Your task to perform on an android device: Open Google Chrome Image 0: 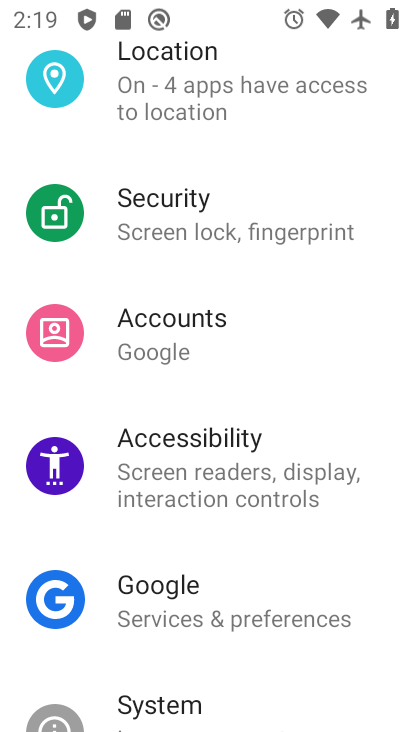
Step 0: press home button
Your task to perform on an android device: Open Google Chrome Image 1: 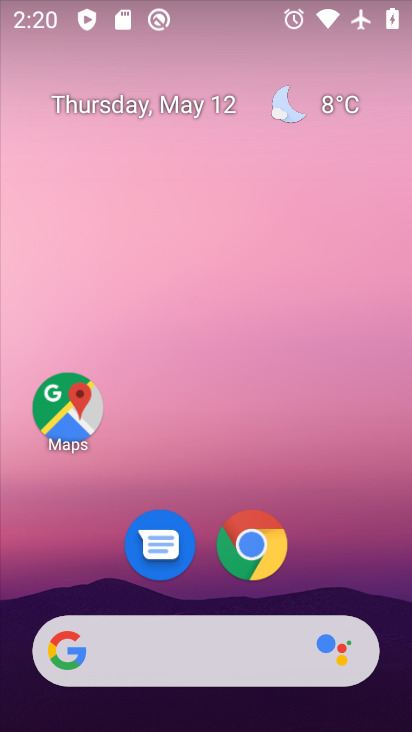
Step 1: click (255, 536)
Your task to perform on an android device: Open Google Chrome Image 2: 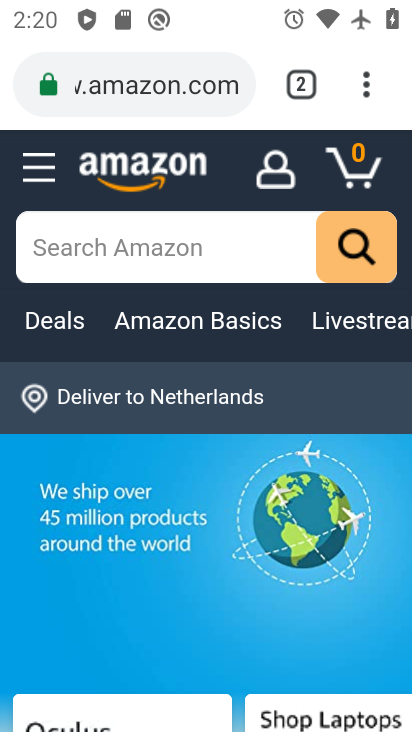
Step 2: task complete